Your task to perform on an android device: open a bookmark in the chrome app Image 0: 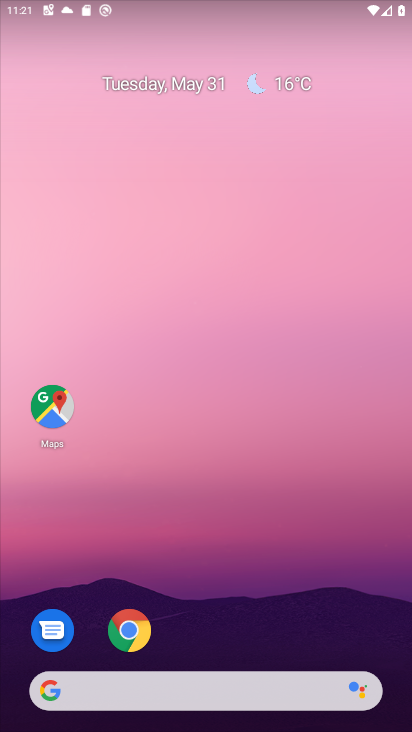
Step 0: drag from (284, 513) to (267, 125)
Your task to perform on an android device: open a bookmark in the chrome app Image 1: 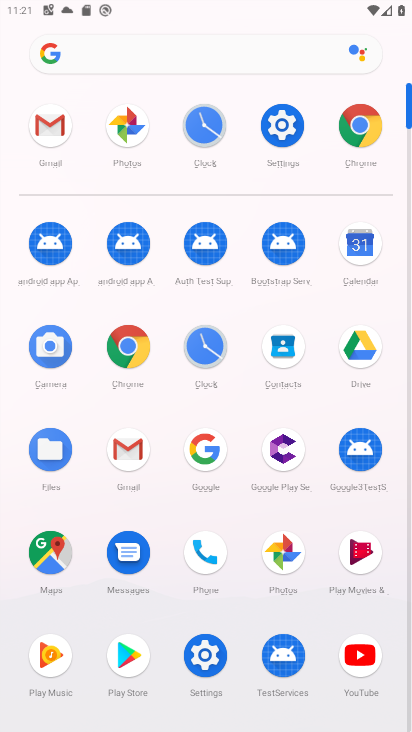
Step 1: click (128, 353)
Your task to perform on an android device: open a bookmark in the chrome app Image 2: 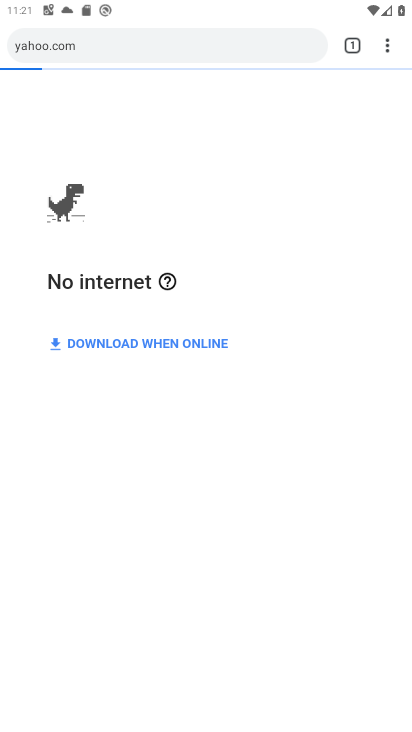
Step 2: click (387, 40)
Your task to perform on an android device: open a bookmark in the chrome app Image 3: 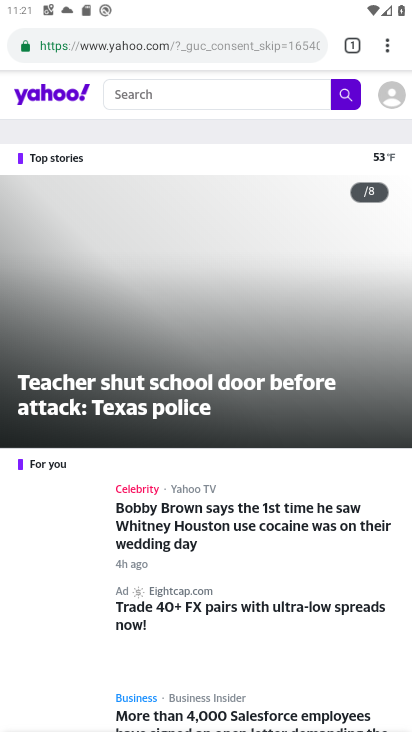
Step 3: click (387, 40)
Your task to perform on an android device: open a bookmark in the chrome app Image 4: 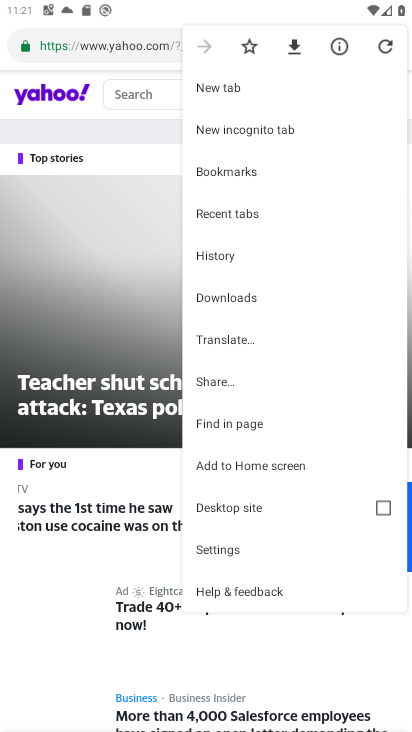
Step 4: click (246, 185)
Your task to perform on an android device: open a bookmark in the chrome app Image 5: 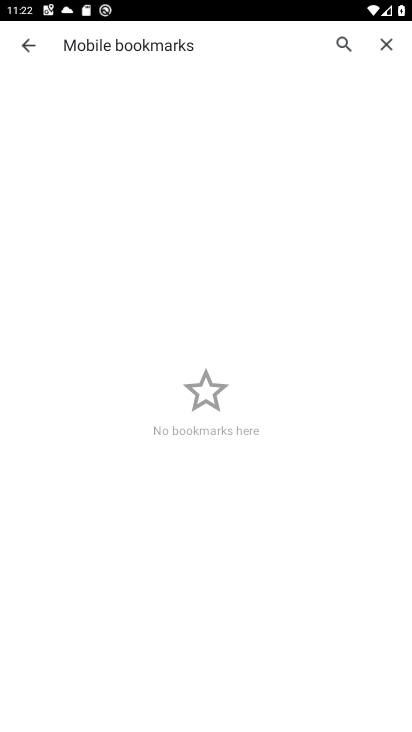
Step 5: task complete